Your task to perform on an android device: Open Reddit.com Image 0: 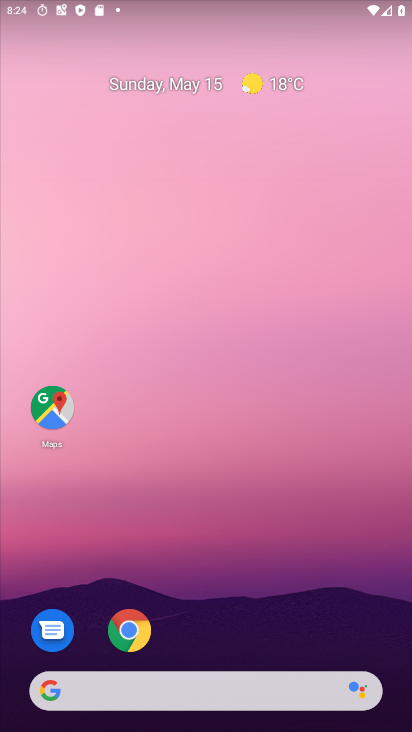
Step 0: click (278, 19)
Your task to perform on an android device: Open Reddit.com Image 1: 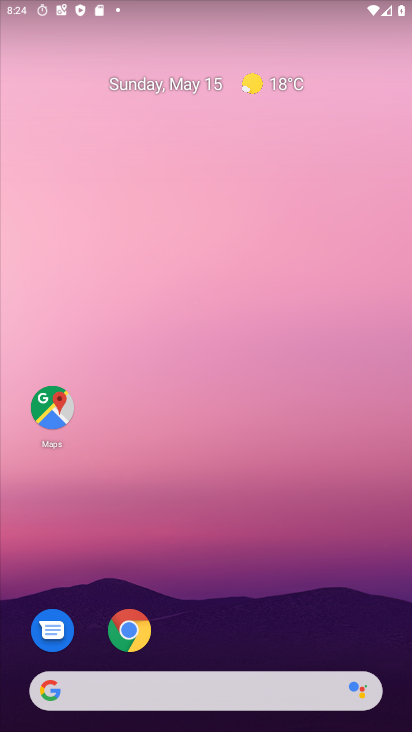
Step 1: drag from (238, 471) to (263, 132)
Your task to perform on an android device: Open Reddit.com Image 2: 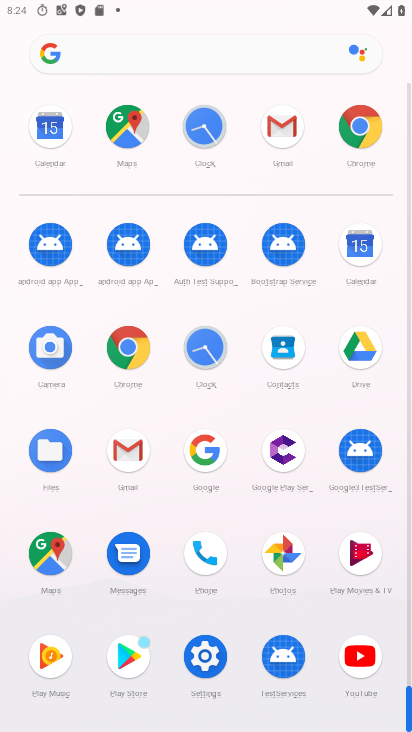
Step 2: click (127, 56)
Your task to perform on an android device: Open Reddit.com Image 3: 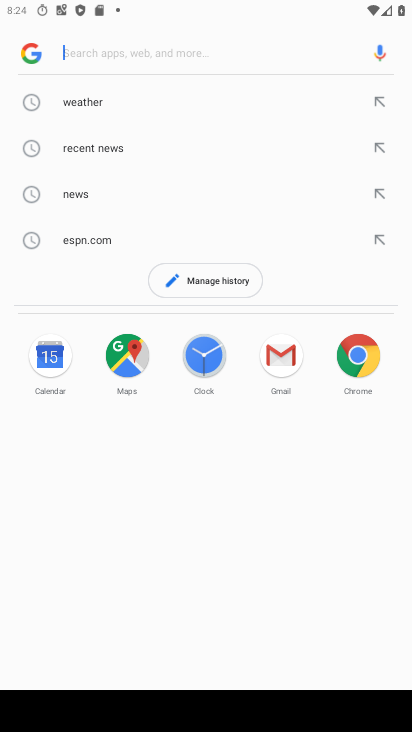
Step 3: type "reddit.com"
Your task to perform on an android device: Open Reddit.com Image 4: 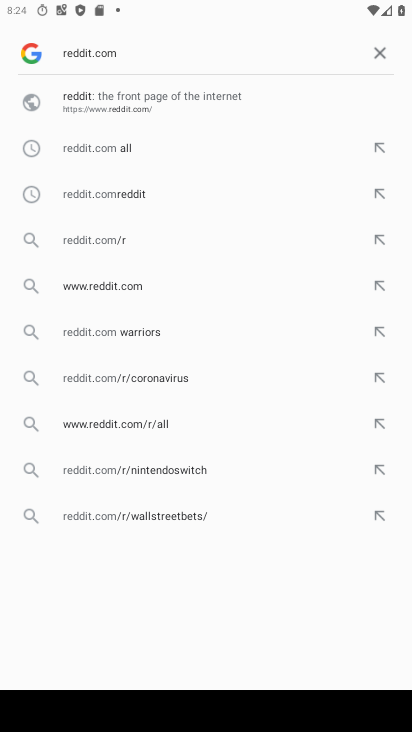
Step 4: click (95, 114)
Your task to perform on an android device: Open Reddit.com Image 5: 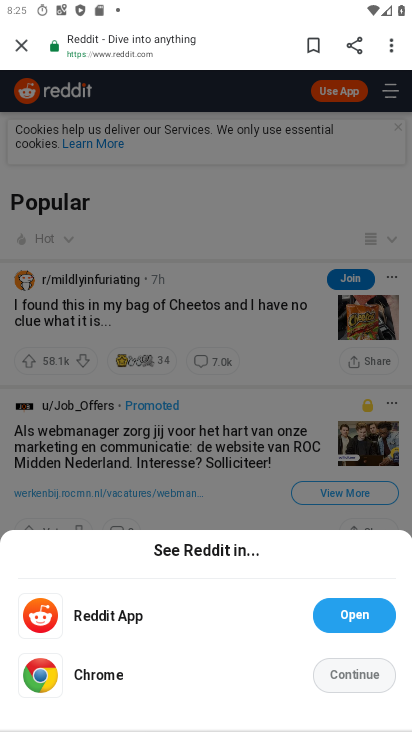
Step 5: task complete